Your task to perform on an android device: Open display settings Image 0: 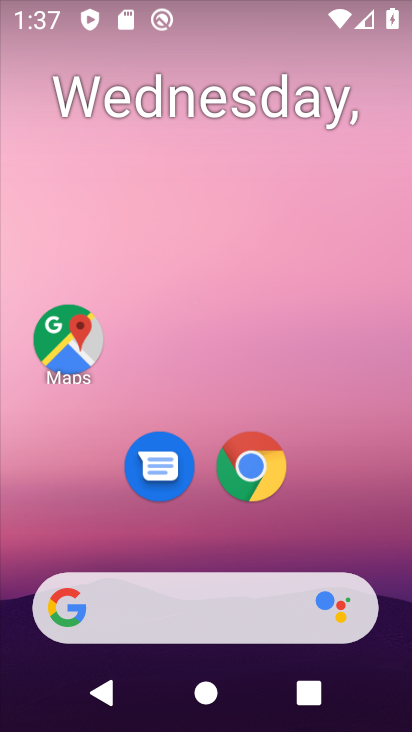
Step 0: drag from (399, 573) to (318, 5)
Your task to perform on an android device: Open display settings Image 1: 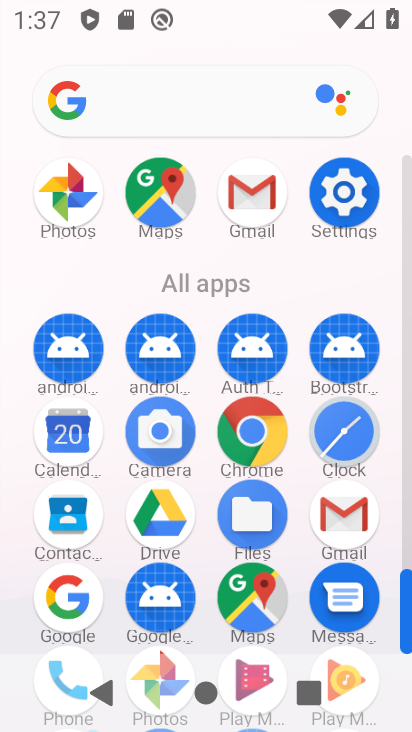
Step 1: drag from (14, 571) to (9, 275)
Your task to perform on an android device: Open display settings Image 2: 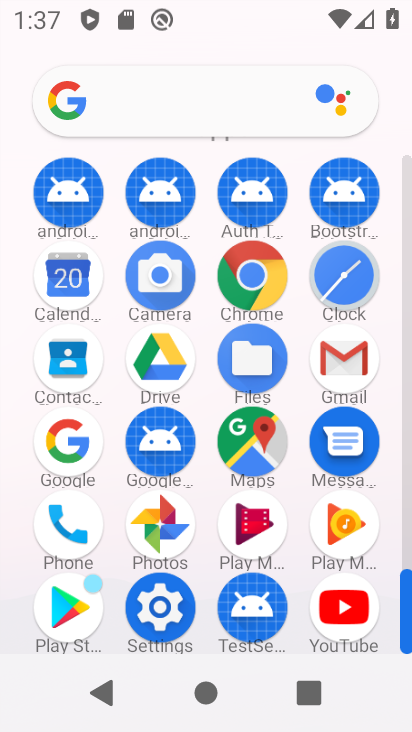
Step 2: click (165, 605)
Your task to perform on an android device: Open display settings Image 3: 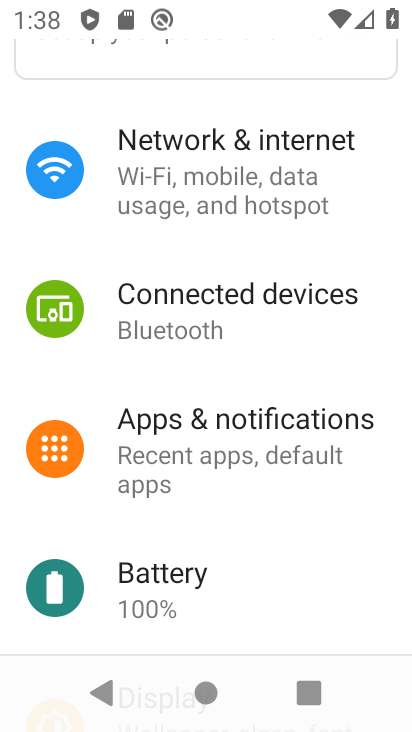
Step 3: drag from (254, 543) to (235, 173)
Your task to perform on an android device: Open display settings Image 4: 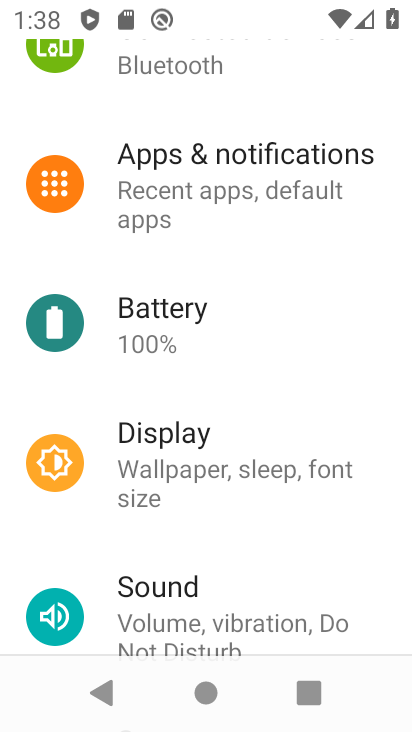
Step 4: click (200, 443)
Your task to perform on an android device: Open display settings Image 5: 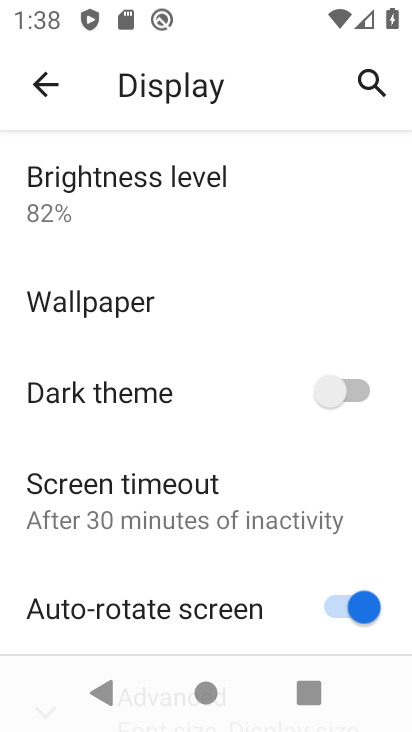
Step 5: drag from (198, 506) to (174, 175)
Your task to perform on an android device: Open display settings Image 6: 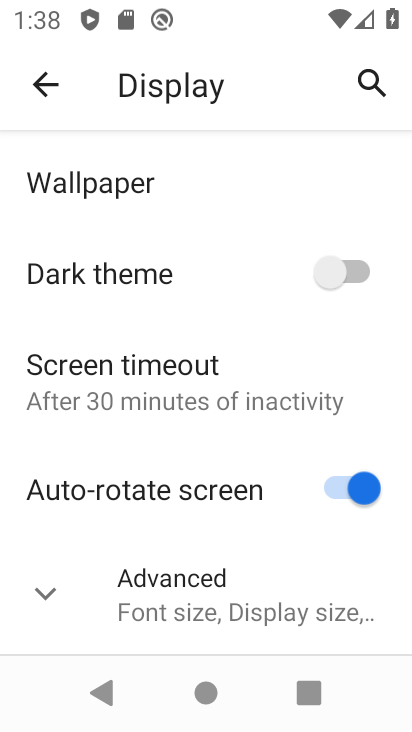
Step 6: click (35, 594)
Your task to perform on an android device: Open display settings Image 7: 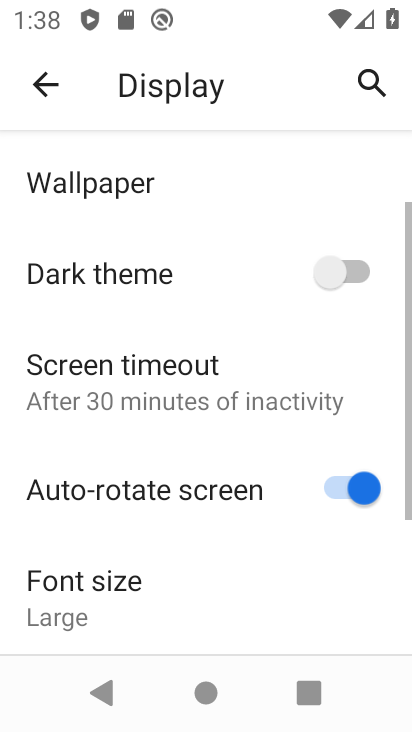
Step 7: task complete